Your task to perform on an android device: turn on improve location accuracy Image 0: 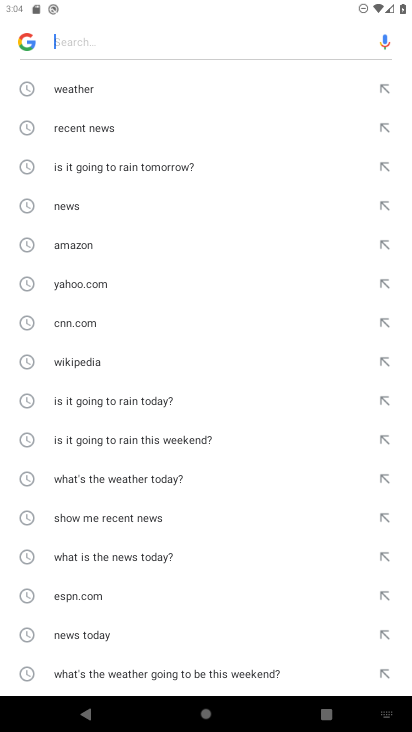
Step 0: press home button
Your task to perform on an android device: turn on improve location accuracy Image 1: 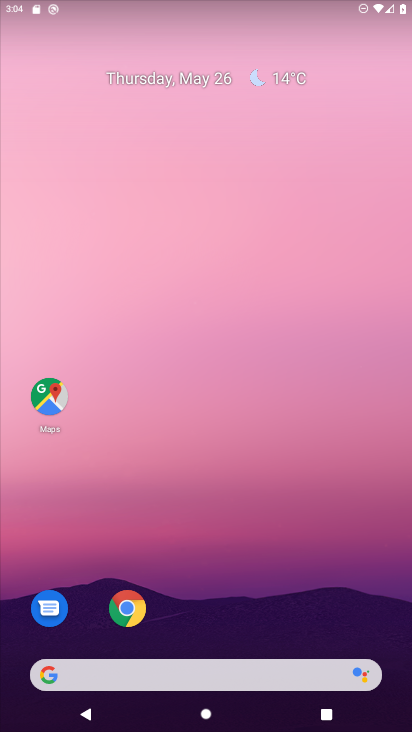
Step 1: drag from (275, 473) to (271, 55)
Your task to perform on an android device: turn on improve location accuracy Image 2: 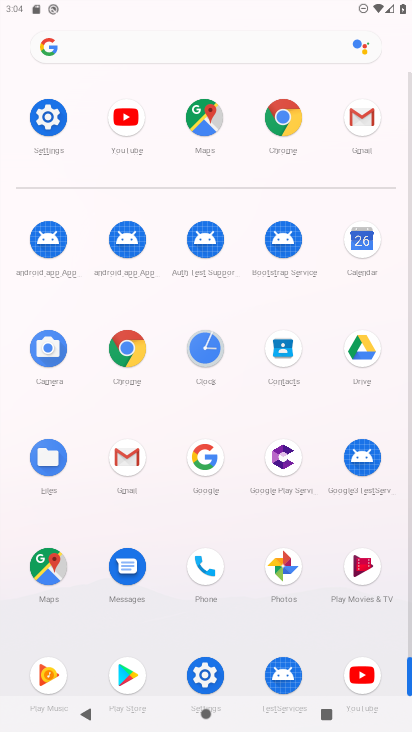
Step 2: click (38, 118)
Your task to perform on an android device: turn on improve location accuracy Image 3: 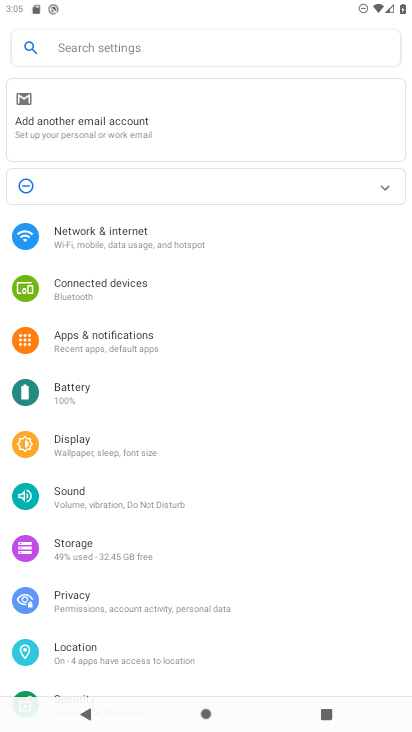
Step 3: click (98, 647)
Your task to perform on an android device: turn on improve location accuracy Image 4: 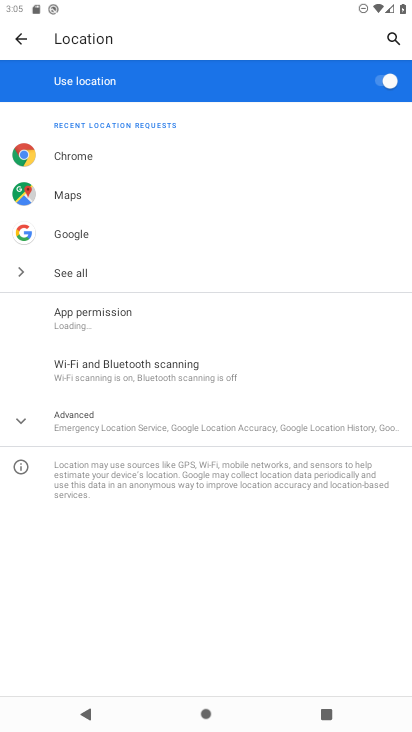
Step 4: click (78, 423)
Your task to perform on an android device: turn on improve location accuracy Image 5: 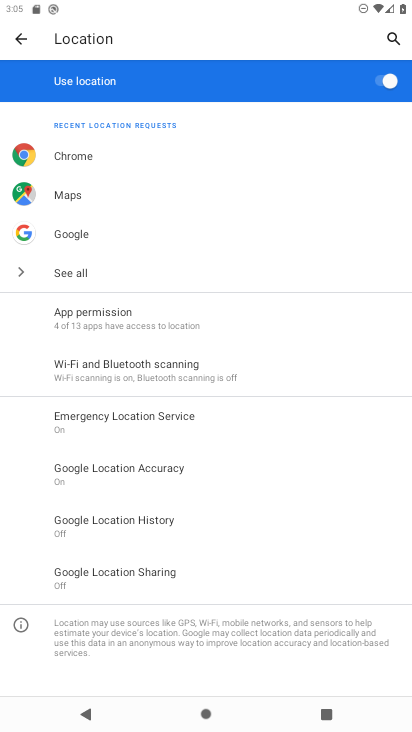
Step 5: click (126, 478)
Your task to perform on an android device: turn on improve location accuracy Image 6: 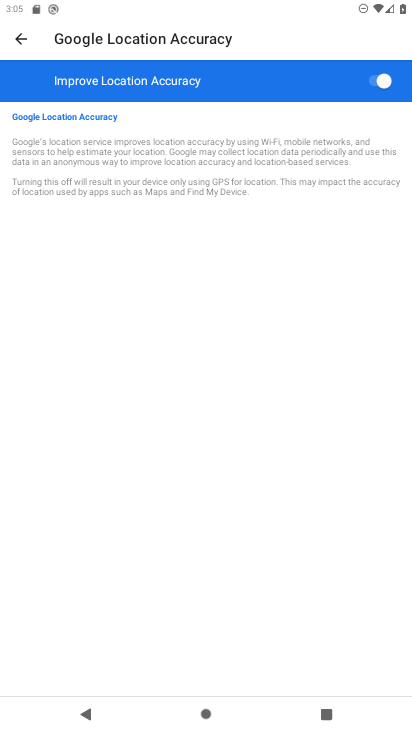
Step 6: task complete